Your task to perform on an android device: change text size in settings app Image 0: 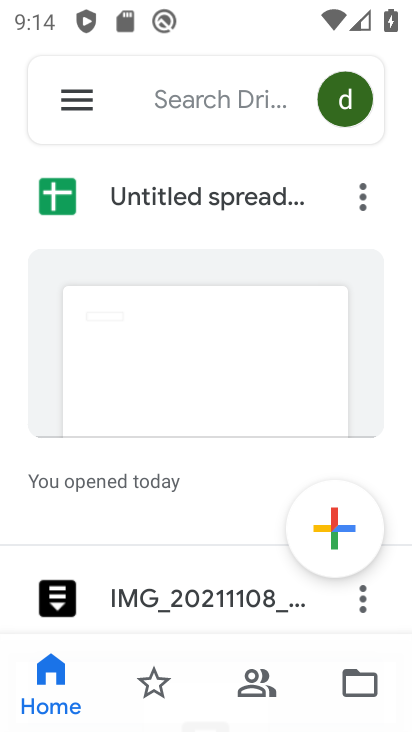
Step 0: press home button
Your task to perform on an android device: change text size in settings app Image 1: 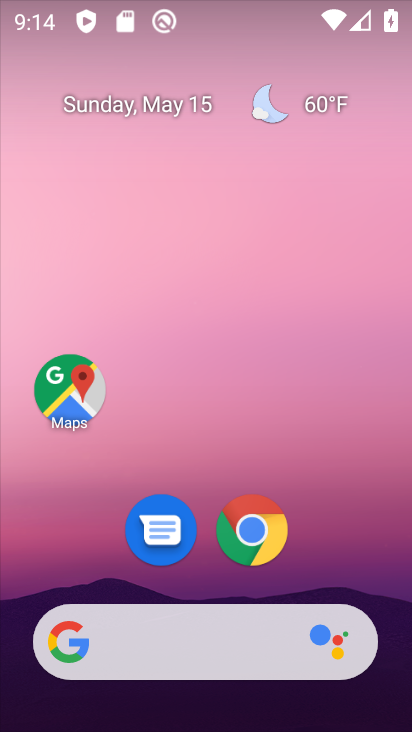
Step 1: drag from (388, 560) to (337, 132)
Your task to perform on an android device: change text size in settings app Image 2: 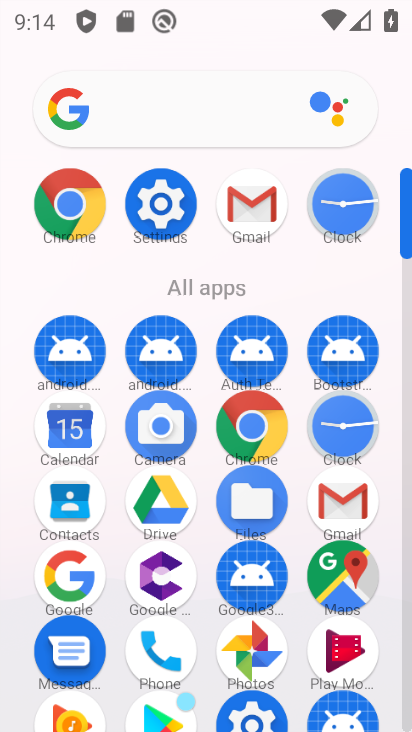
Step 2: click (183, 204)
Your task to perform on an android device: change text size in settings app Image 3: 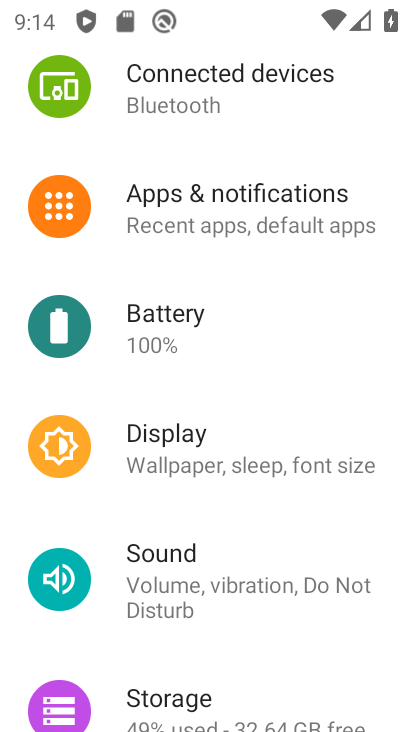
Step 3: drag from (378, 286) to (379, 553)
Your task to perform on an android device: change text size in settings app Image 4: 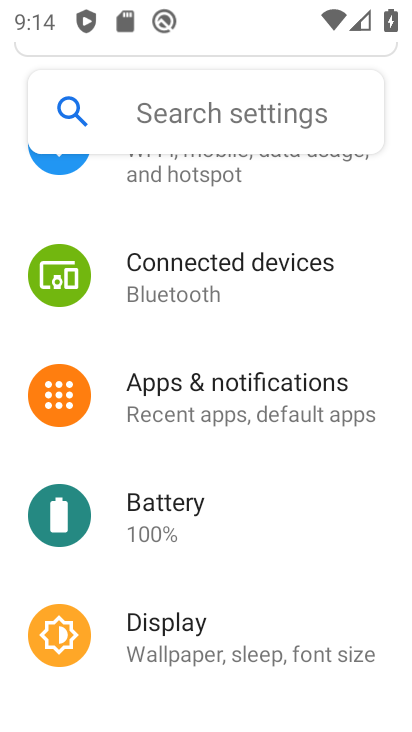
Step 4: drag from (381, 224) to (381, 476)
Your task to perform on an android device: change text size in settings app Image 5: 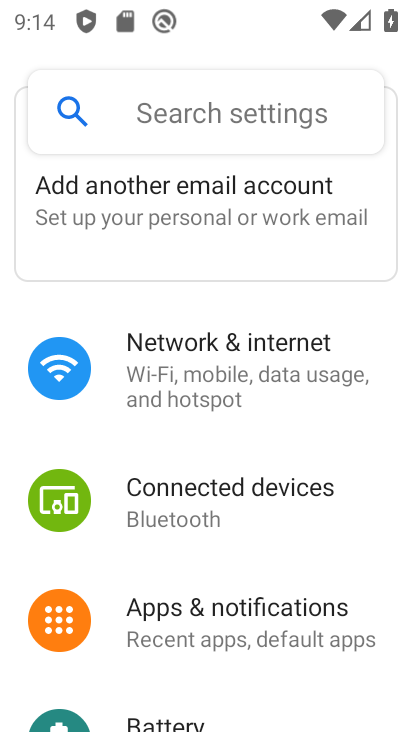
Step 5: drag from (373, 575) to (377, 426)
Your task to perform on an android device: change text size in settings app Image 6: 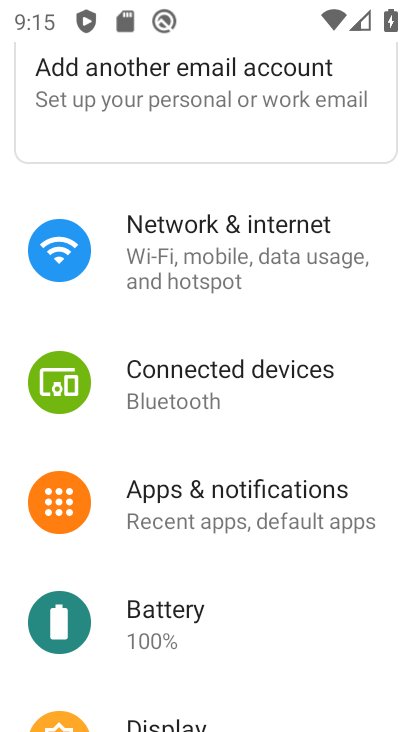
Step 6: drag from (372, 658) to (370, 434)
Your task to perform on an android device: change text size in settings app Image 7: 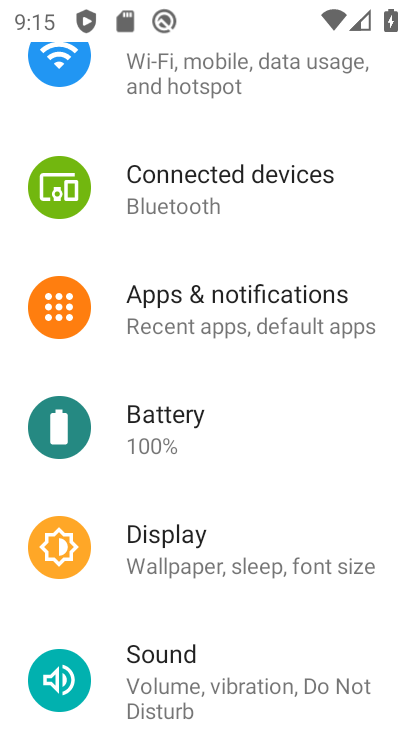
Step 7: drag from (366, 629) to (371, 426)
Your task to perform on an android device: change text size in settings app Image 8: 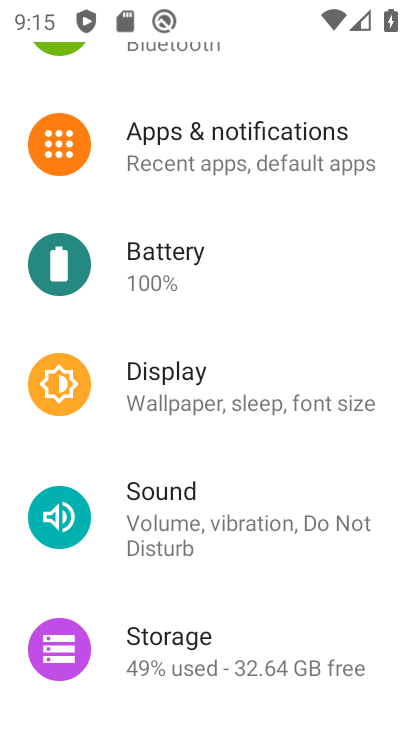
Step 8: click (139, 399)
Your task to perform on an android device: change text size in settings app Image 9: 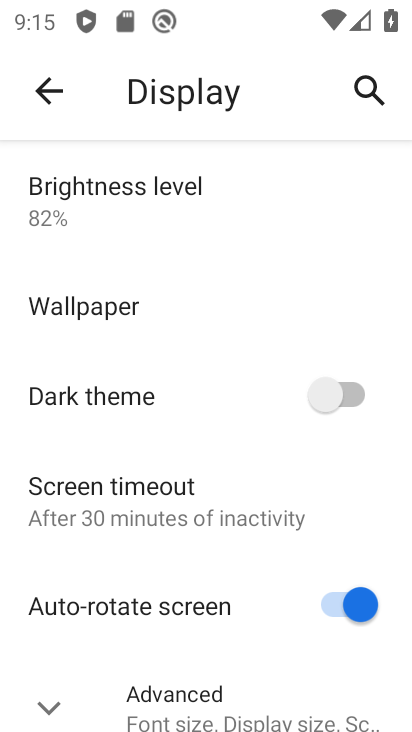
Step 9: drag from (248, 659) to (248, 462)
Your task to perform on an android device: change text size in settings app Image 10: 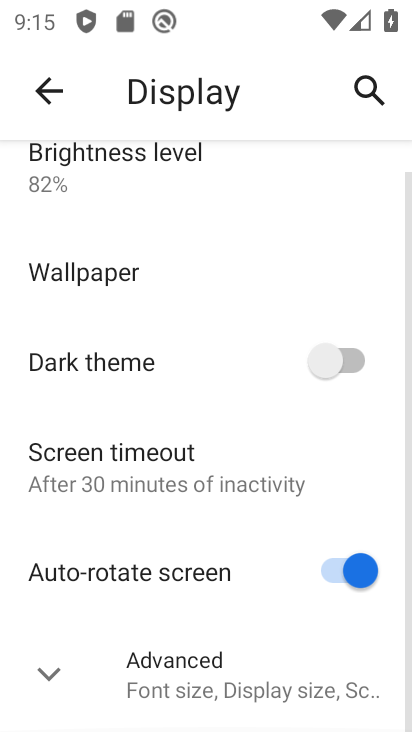
Step 10: click (184, 672)
Your task to perform on an android device: change text size in settings app Image 11: 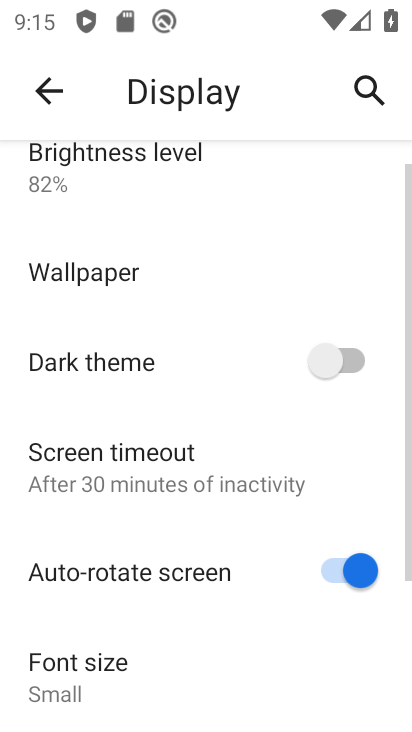
Step 11: drag from (267, 647) to (258, 424)
Your task to perform on an android device: change text size in settings app Image 12: 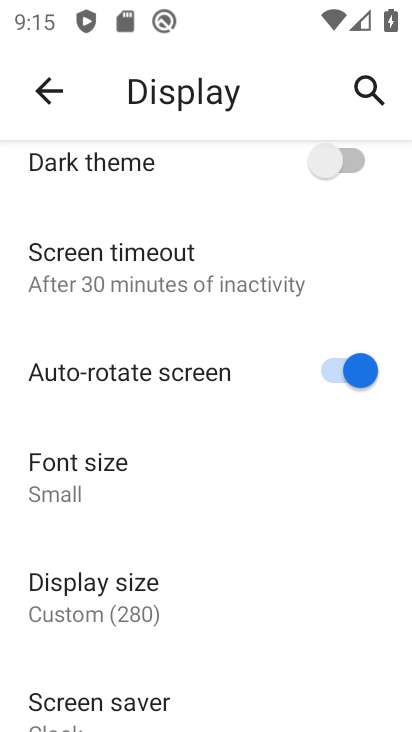
Step 12: drag from (263, 663) to (268, 464)
Your task to perform on an android device: change text size in settings app Image 13: 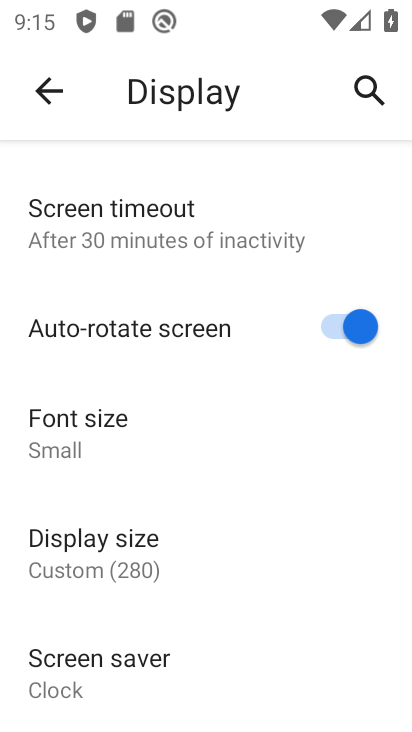
Step 13: drag from (277, 627) to (272, 455)
Your task to perform on an android device: change text size in settings app Image 14: 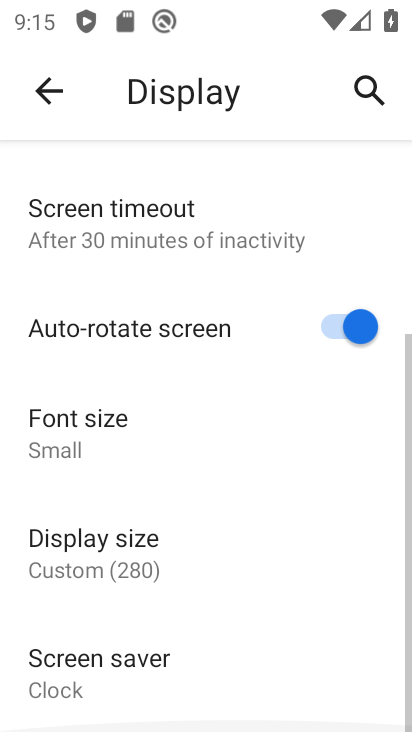
Step 14: click (54, 433)
Your task to perform on an android device: change text size in settings app Image 15: 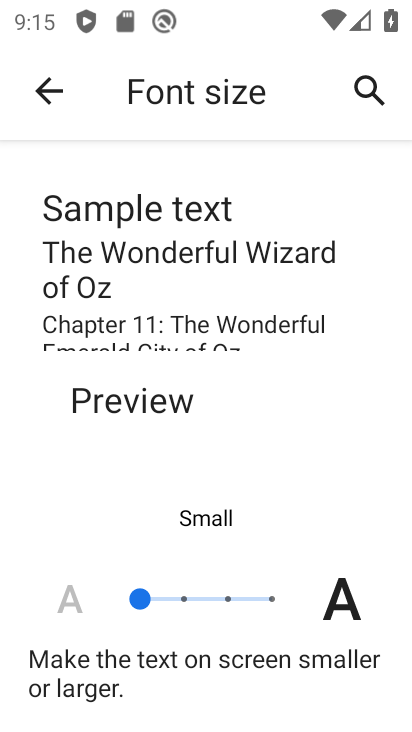
Step 15: click (179, 601)
Your task to perform on an android device: change text size in settings app Image 16: 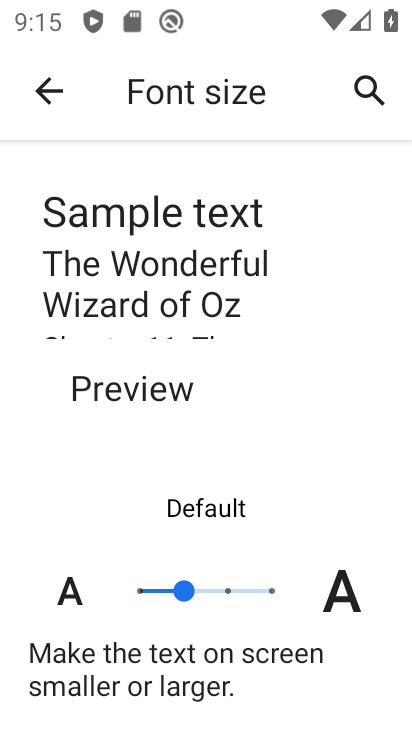
Step 16: task complete